Your task to perform on an android device: check the backup settings in the google photos Image 0: 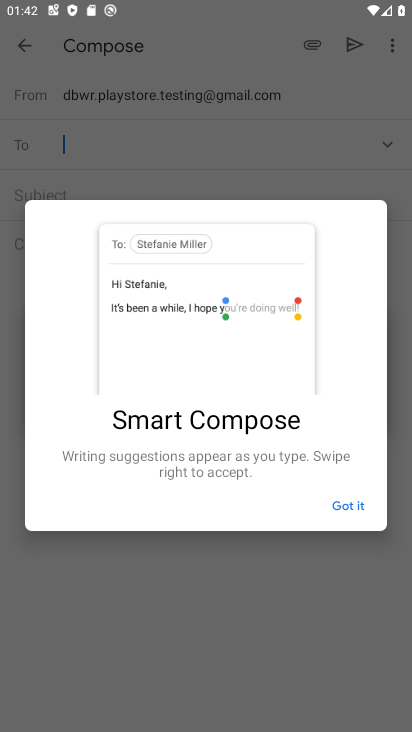
Step 0: press home button
Your task to perform on an android device: check the backup settings in the google photos Image 1: 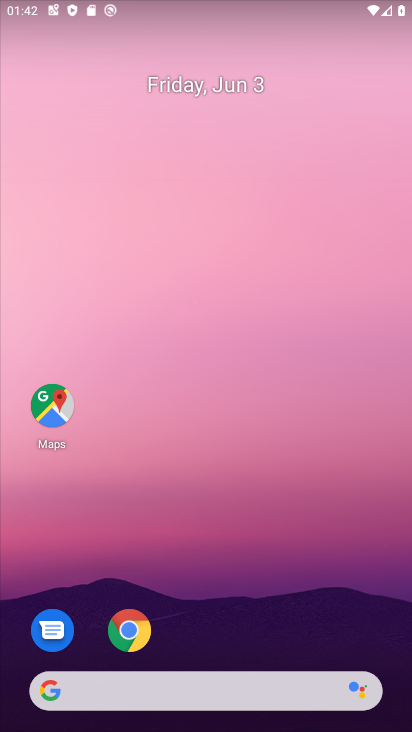
Step 1: drag from (218, 643) to (228, 114)
Your task to perform on an android device: check the backup settings in the google photos Image 2: 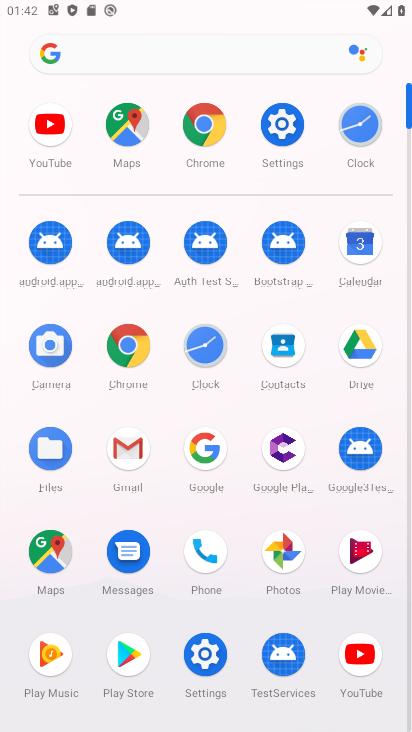
Step 2: click (276, 571)
Your task to perform on an android device: check the backup settings in the google photos Image 3: 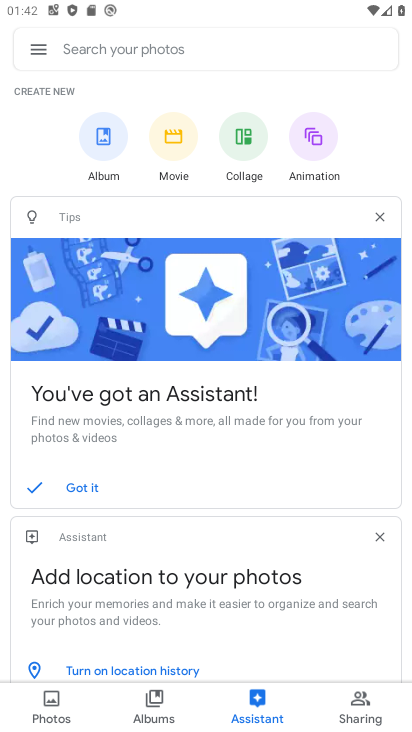
Step 3: click (45, 50)
Your task to perform on an android device: check the backup settings in the google photos Image 4: 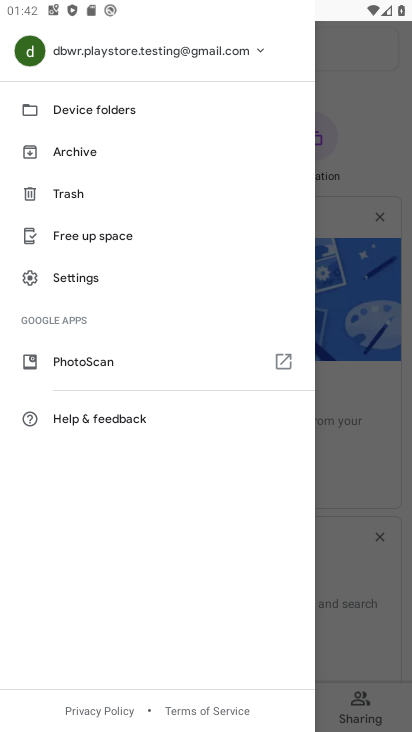
Step 4: click (80, 282)
Your task to perform on an android device: check the backup settings in the google photos Image 5: 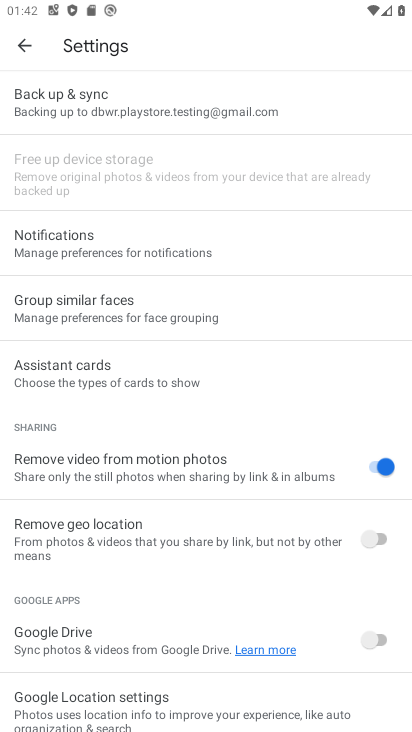
Step 5: click (226, 102)
Your task to perform on an android device: check the backup settings in the google photos Image 6: 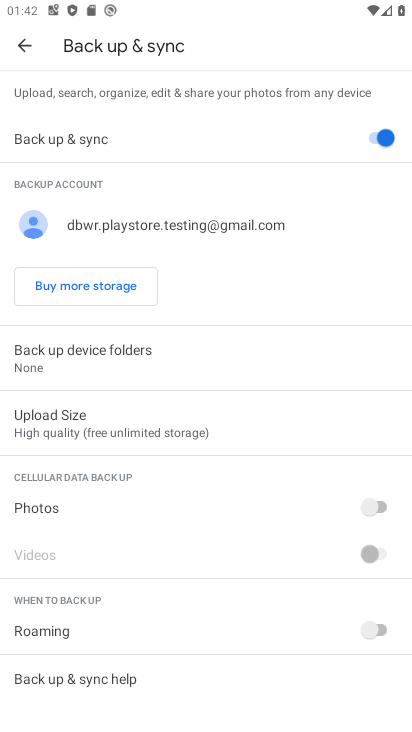
Step 6: task complete